Your task to perform on an android device: turn notification dots on Image 0: 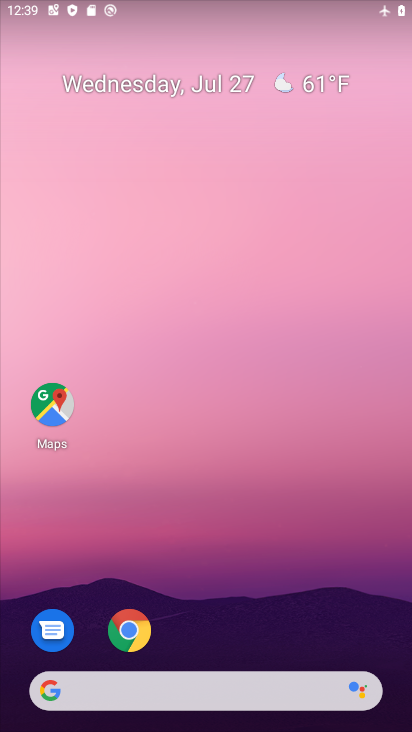
Step 0: drag from (185, 668) to (223, 75)
Your task to perform on an android device: turn notification dots on Image 1: 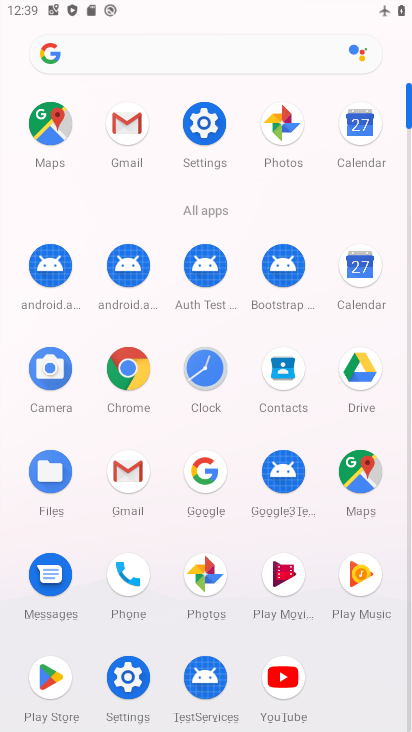
Step 1: click (210, 115)
Your task to perform on an android device: turn notification dots on Image 2: 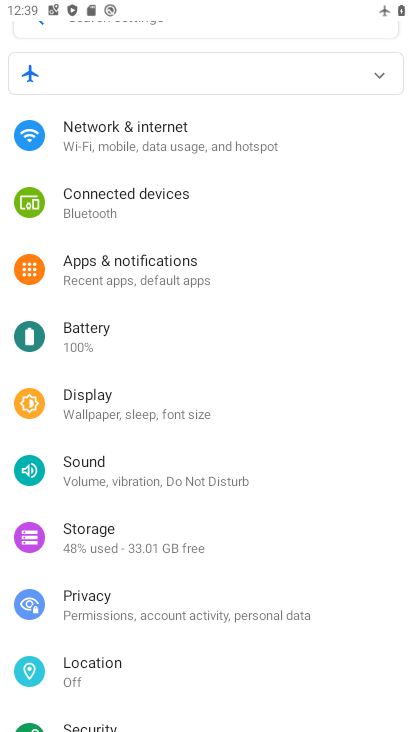
Step 2: click (135, 268)
Your task to perform on an android device: turn notification dots on Image 3: 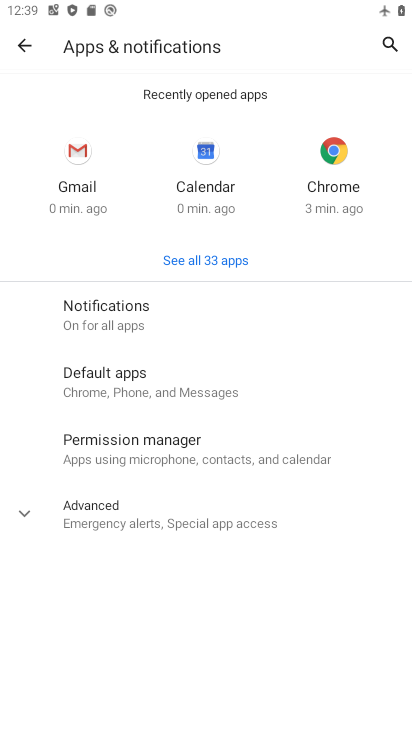
Step 3: click (83, 323)
Your task to perform on an android device: turn notification dots on Image 4: 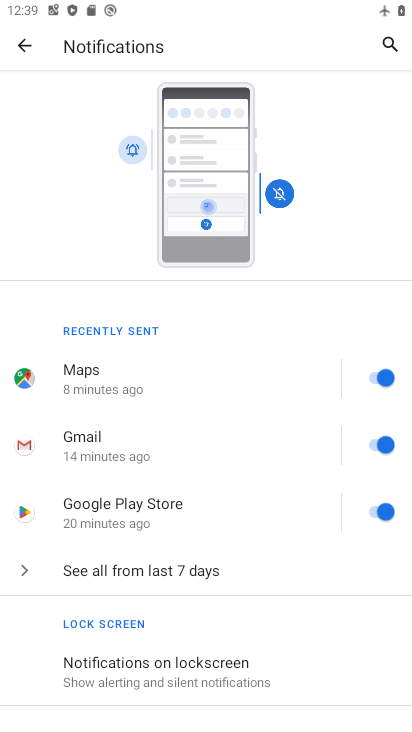
Step 4: drag from (120, 662) to (152, 198)
Your task to perform on an android device: turn notification dots on Image 5: 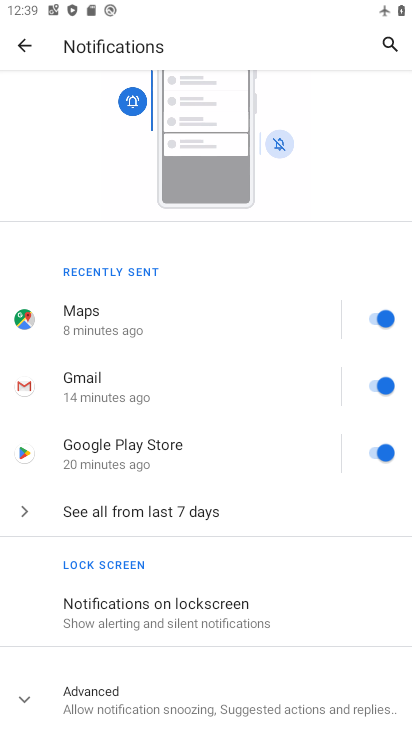
Step 5: click (104, 703)
Your task to perform on an android device: turn notification dots on Image 6: 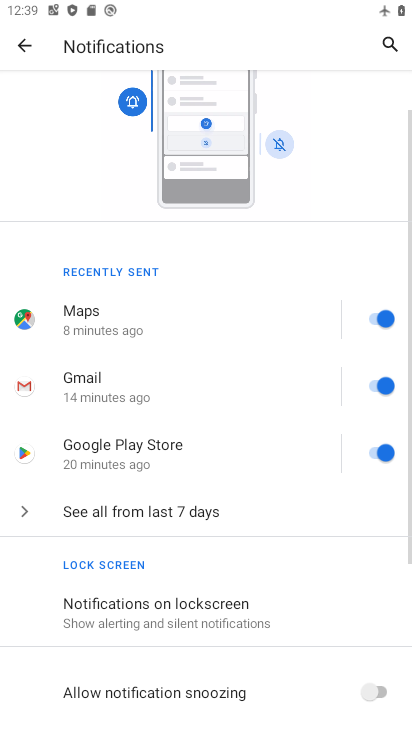
Step 6: drag from (200, 700) to (242, 363)
Your task to perform on an android device: turn notification dots on Image 7: 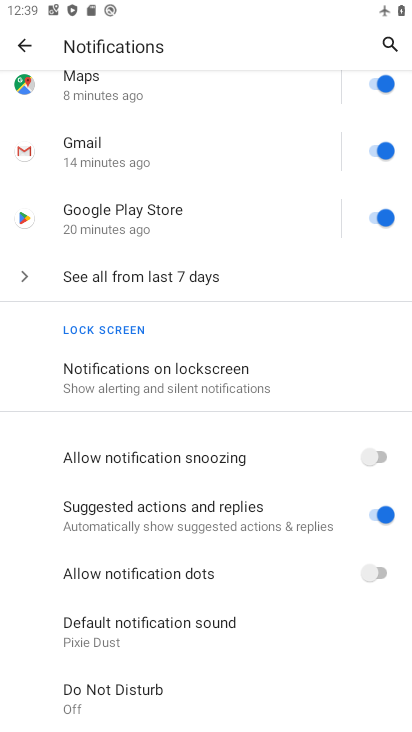
Step 7: click (381, 571)
Your task to perform on an android device: turn notification dots on Image 8: 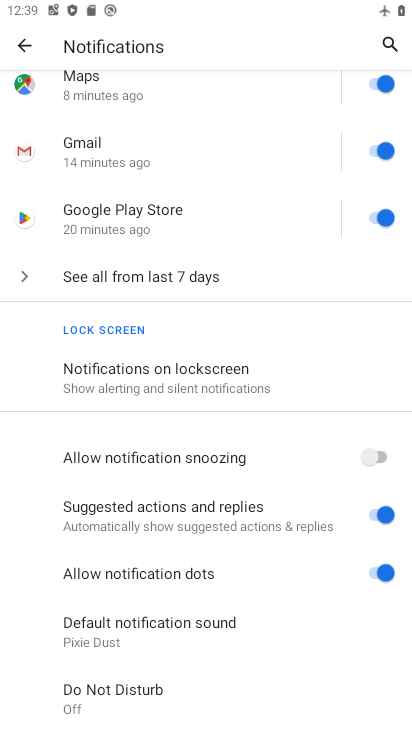
Step 8: task complete